Your task to perform on an android device: turn off data saver in the chrome app Image 0: 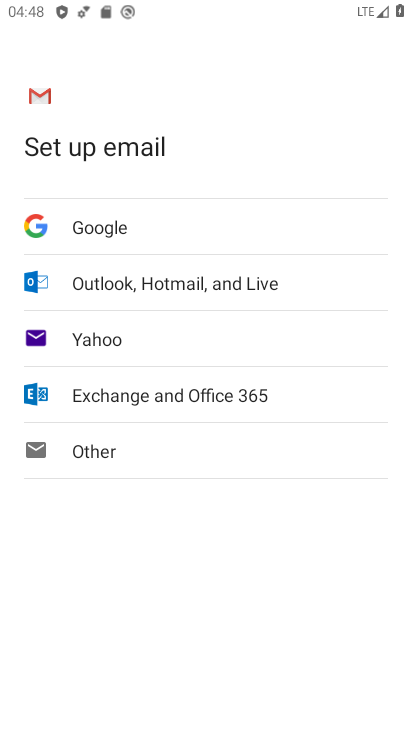
Step 0: press back button
Your task to perform on an android device: turn off data saver in the chrome app Image 1: 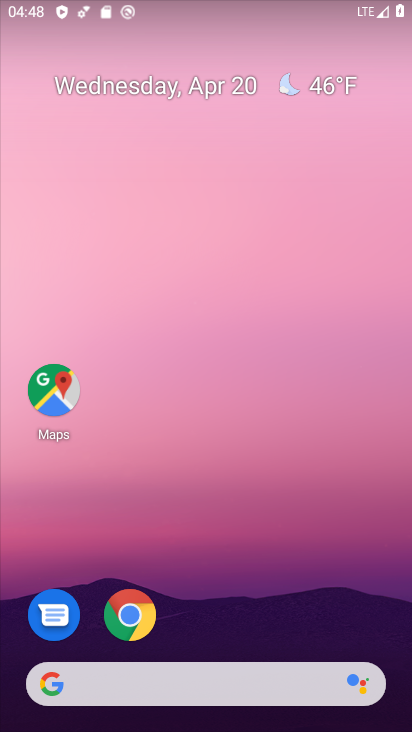
Step 1: click (125, 623)
Your task to perform on an android device: turn off data saver in the chrome app Image 2: 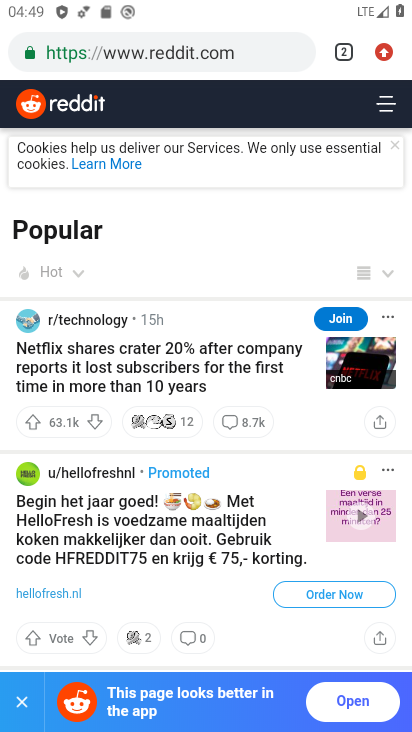
Step 2: drag from (384, 59) to (214, 656)
Your task to perform on an android device: turn off data saver in the chrome app Image 3: 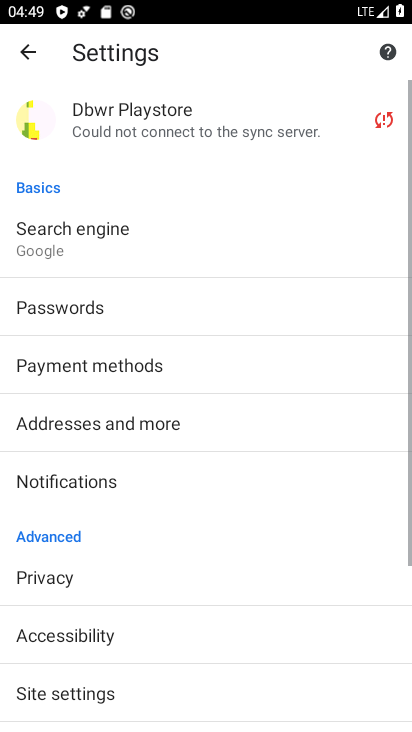
Step 3: drag from (201, 404) to (251, 84)
Your task to perform on an android device: turn off data saver in the chrome app Image 4: 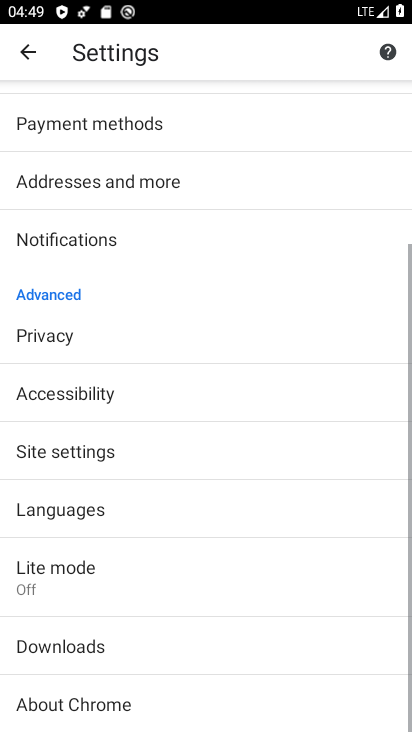
Step 4: click (103, 574)
Your task to perform on an android device: turn off data saver in the chrome app Image 5: 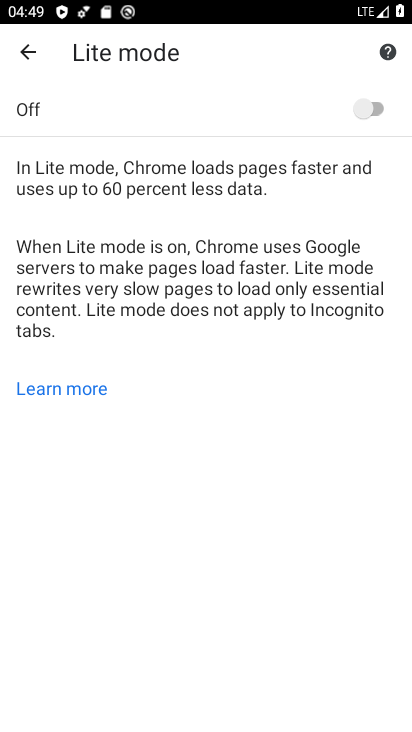
Step 5: task complete